Your task to perform on an android device: Turn on the flashlight Image 0: 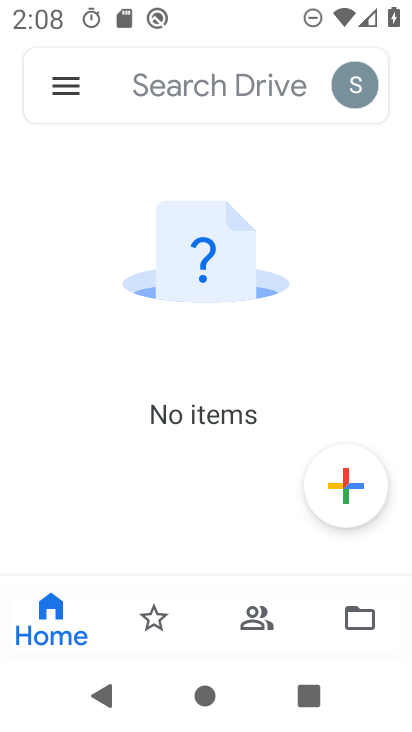
Step 0: press home button
Your task to perform on an android device: Turn on the flashlight Image 1: 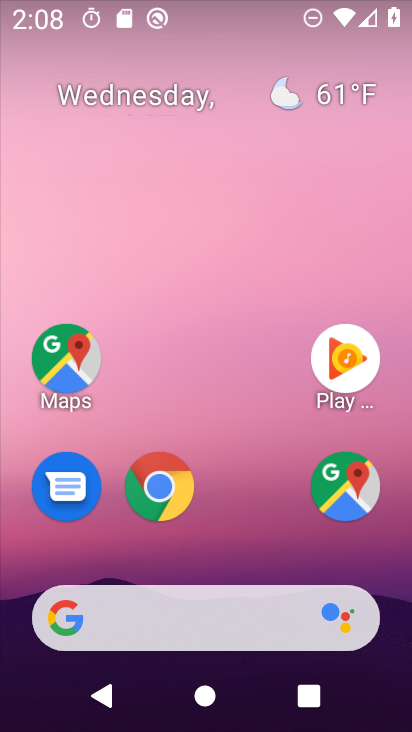
Step 1: drag from (240, 10) to (220, 351)
Your task to perform on an android device: Turn on the flashlight Image 2: 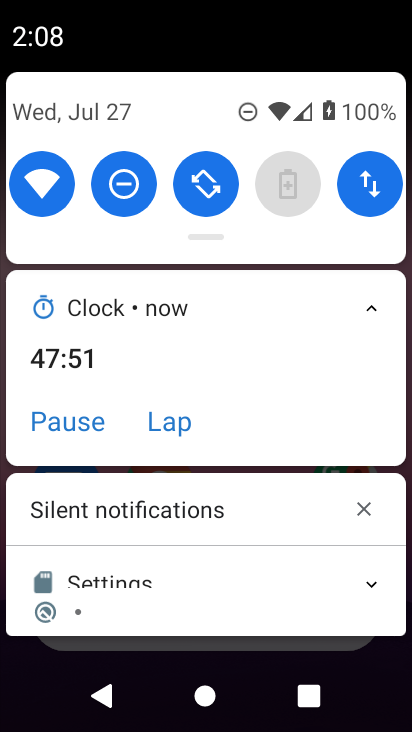
Step 2: drag from (228, 117) to (250, 313)
Your task to perform on an android device: Turn on the flashlight Image 3: 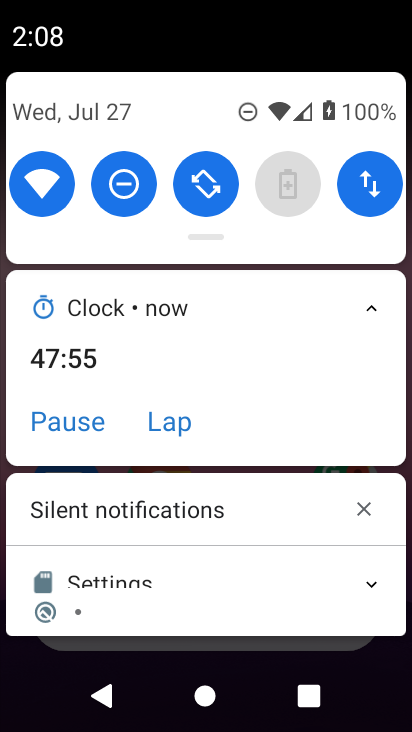
Step 3: drag from (224, 112) to (221, 371)
Your task to perform on an android device: Turn on the flashlight Image 4: 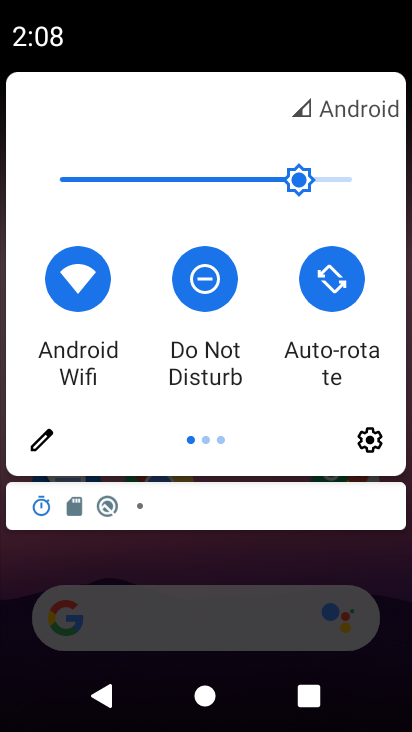
Step 4: click (51, 438)
Your task to perform on an android device: Turn on the flashlight Image 5: 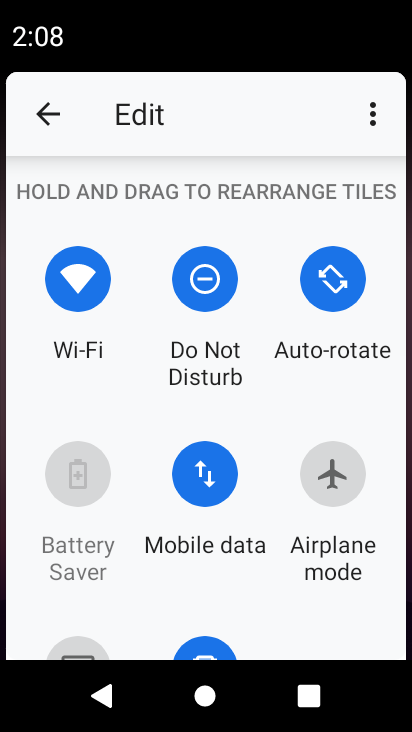
Step 5: task complete